Your task to perform on an android device: delete the emails in spam in the gmail app Image 0: 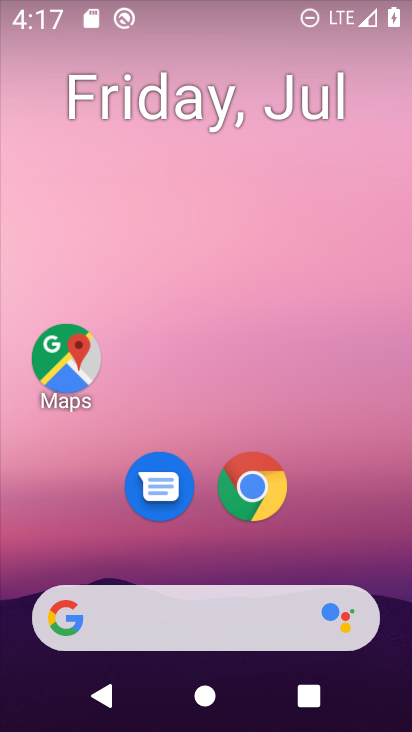
Step 0: drag from (182, 553) to (226, 3)
Your task to perform on an android device: delete the emails in spam in the gmail app Image 1: 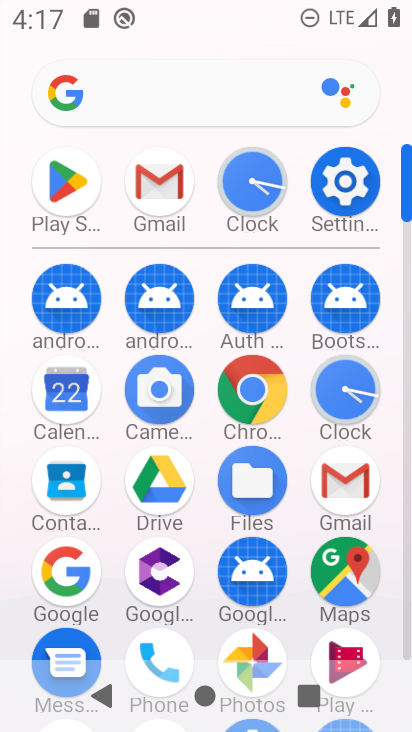
Step 1: click (157, 171)
Your task to perform on an android device: delete the emails in spam in the gmail app Image 2: 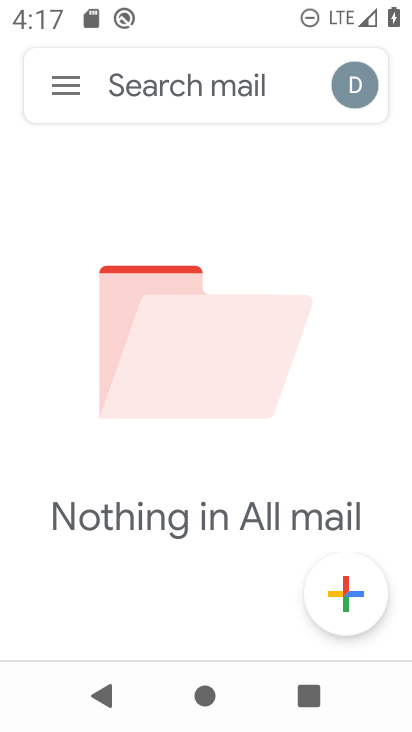
Step 2: click (74, 99)
Your task to perform on an android device: delete the emails in spam in the gmail app Image 3: 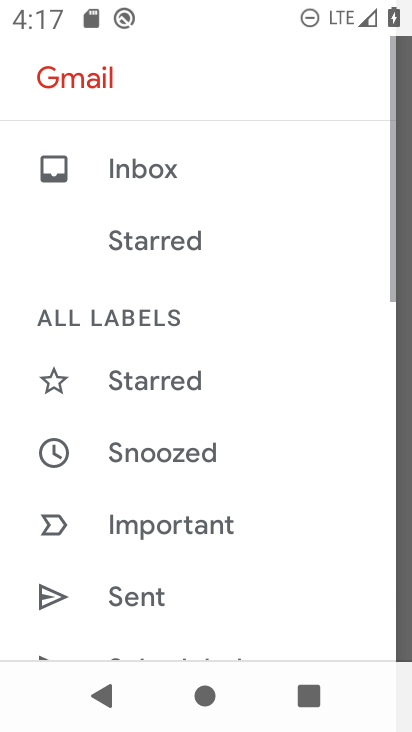
Step 3: drag from (167, 537) to (260, 33)
Your task to perform on an android device: delete the emails in spam in the gmail app Image 4: 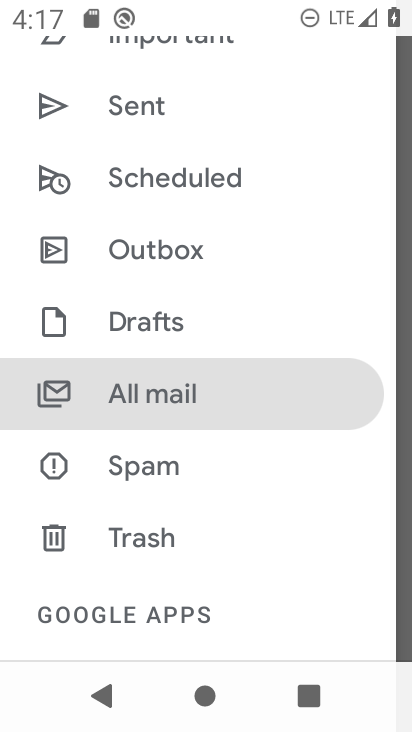
Step 4: click (153, 475)
Your task to perform on an android device: delete the emails in spam in the gmail app Image 5: 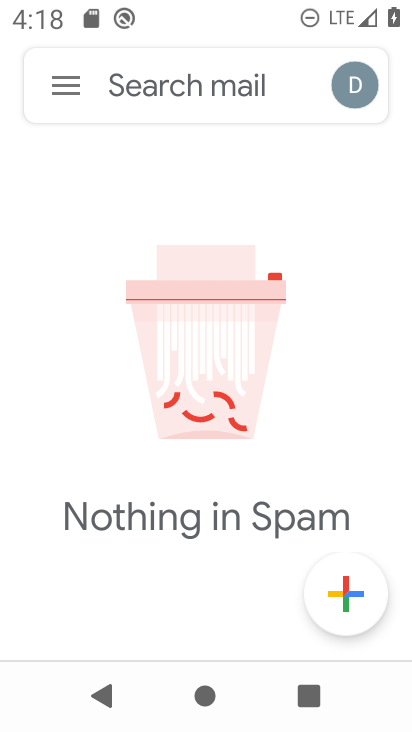
Step 5: task complete